Your task to perform on an android device: What's the weather going to be this weekend? Image 0: 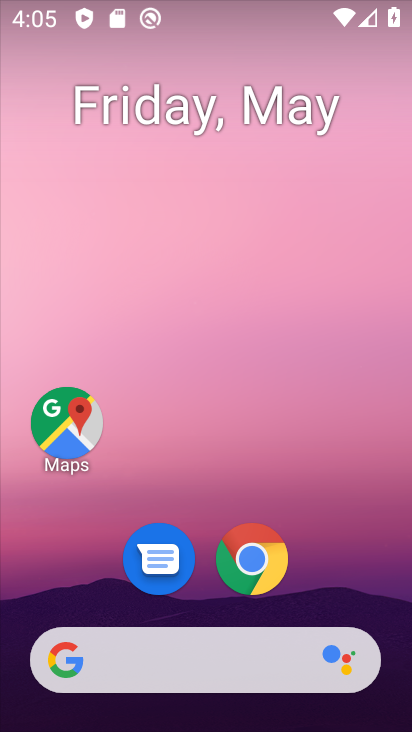
Step 0: click (105, 660)
Your task to perform on an android device: What's the weather going to be this weekend? Image 1: 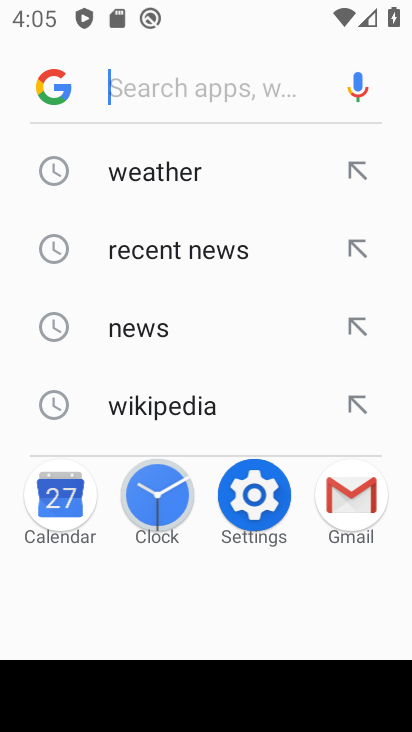
Step 1: click (172, 181)
Your task to perform on an android device: What's the weather going to be this weekend? Image 2: 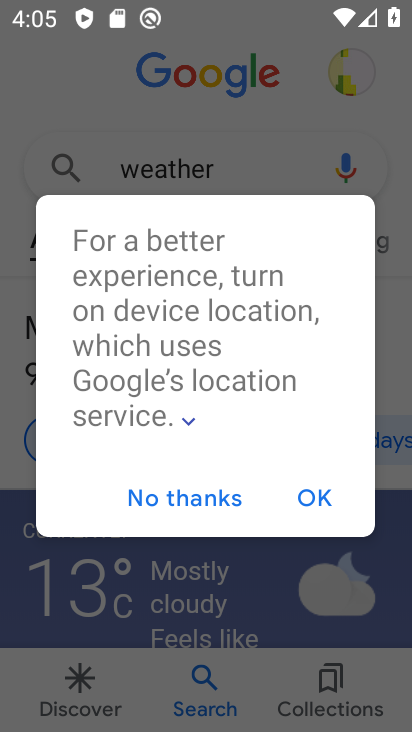
Step 2: click (292, 484)
Your task to perform on an android device: What's the weather going to be this weekend? Image 3: 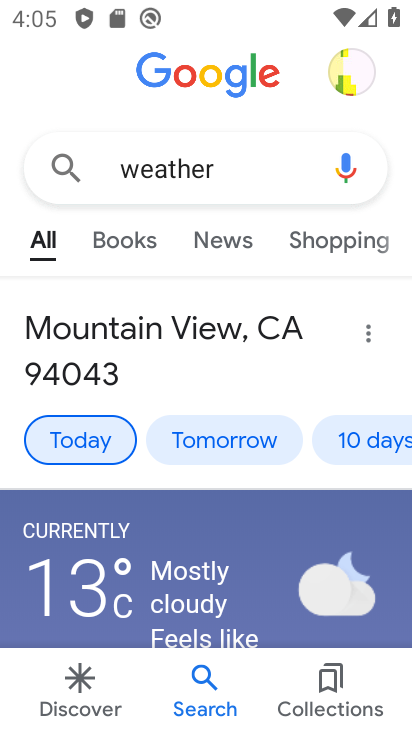
Step 3: click (340, 445)
Your task to perform on an android device: What's the weather going to be this weekend? Image 4: 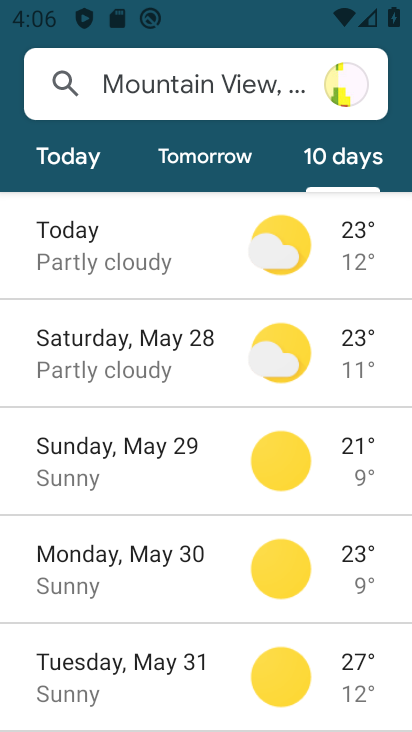
Step 4: task complete